Your task to perform on an android device: Go to notification settings Image 0: 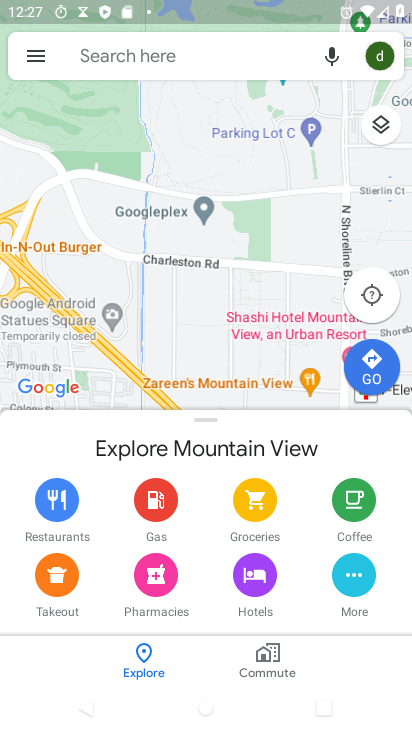
Step 0: press home button
Your task to perform on an android device: Go to notification settings Image 1: 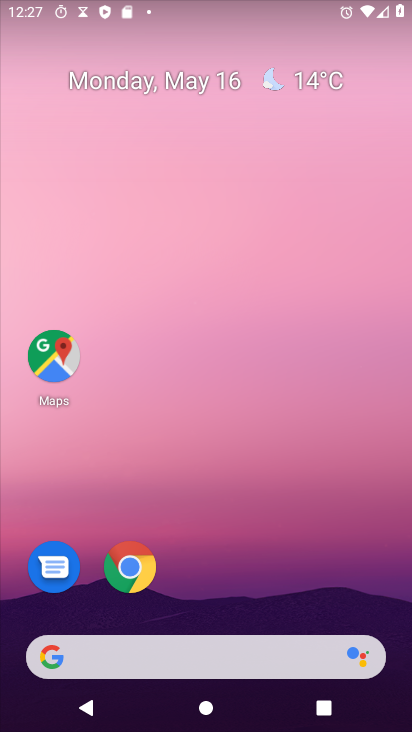
Step 1: drag from (272, 603) to (286, 19)
Your task to perform on an android device: Go to notification settings Image 2: 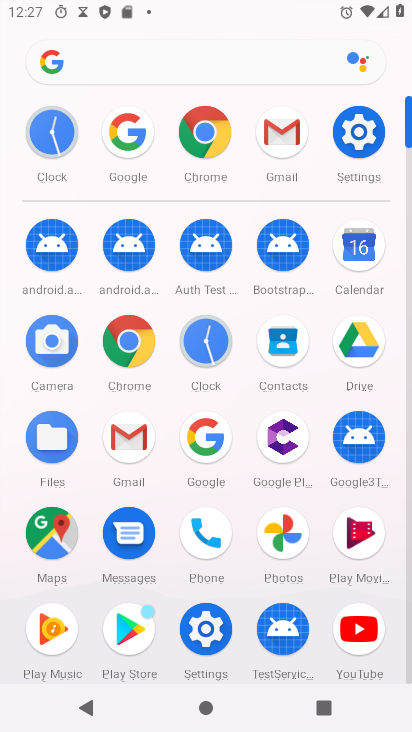
Step 2: click (358, 137)
Your task to perform on an android device: Go to notification settings Image 3: 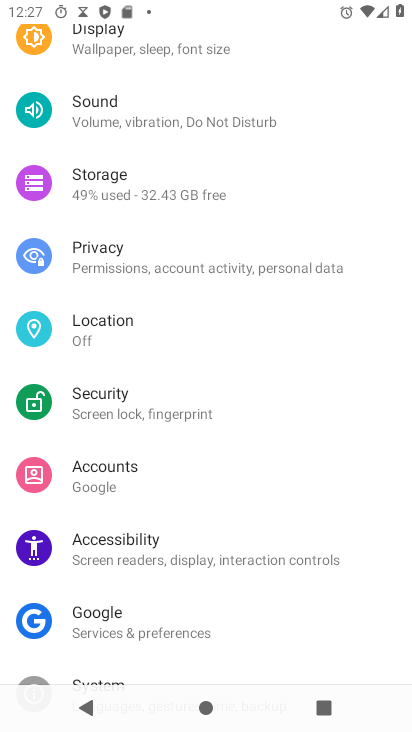
Step 3: drag from (166, 372) to (186, 551)
Your task to perform on an android device: Go to notification settings Image 4: 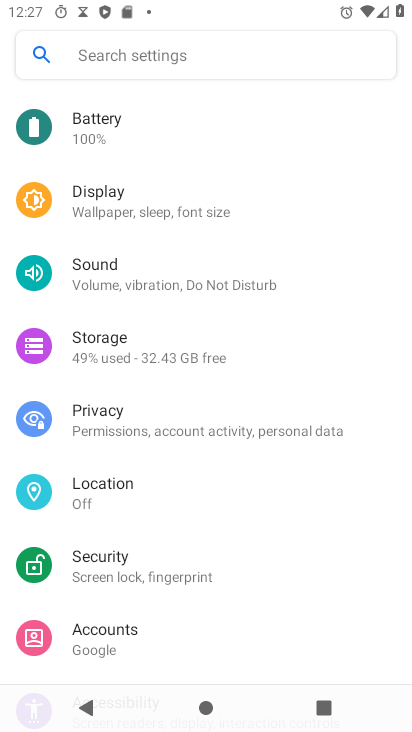
Step 4: drag from (164, 327) to (264, 574)
Your task to perform on an android device: Go to notification settings Image 5: 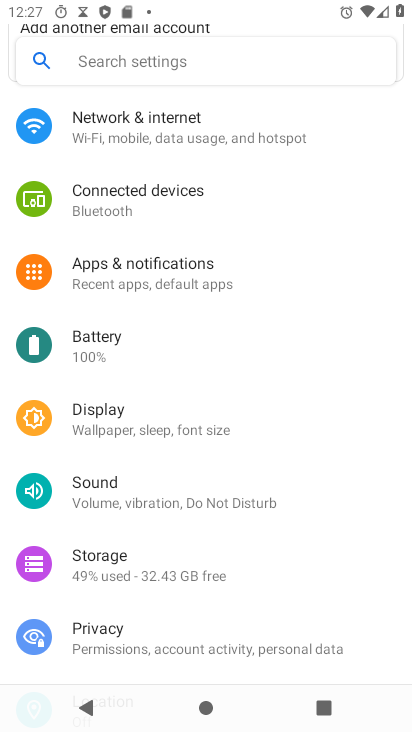
Step 5: click (187, 275)
Your task to perform on an android device: Go to notification settings Image 6: 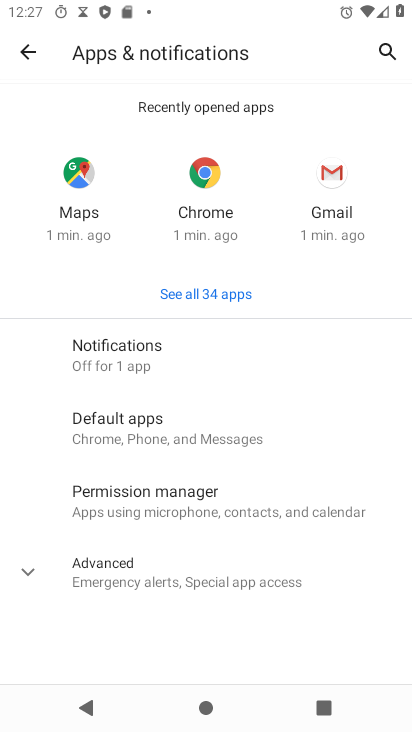
Step 6: task complete